Your task to perform on an android device: Do I have any events tomorrow? Image 0: 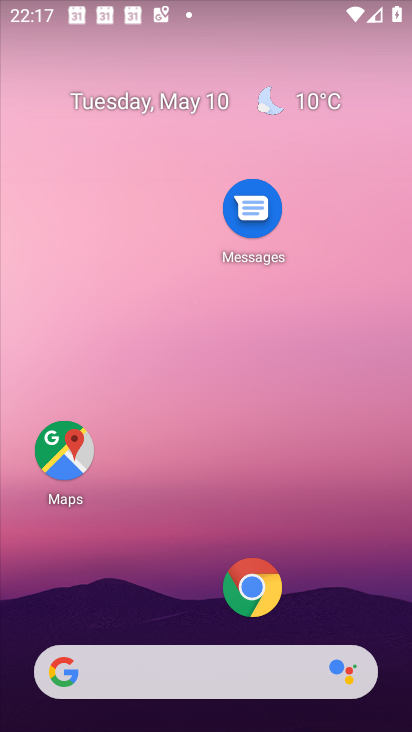
Step 0: drag from (189, 608) to (235, 234)
Your task to perform on an android device: Do I have any events tomorrow? Image 1: 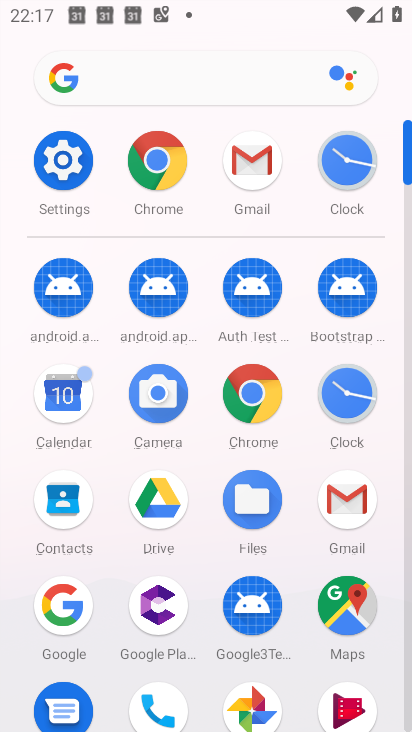
Step 1: click (80, 378)
Your task to perform on an android device: Do I have any events tomorrow? Image 2: 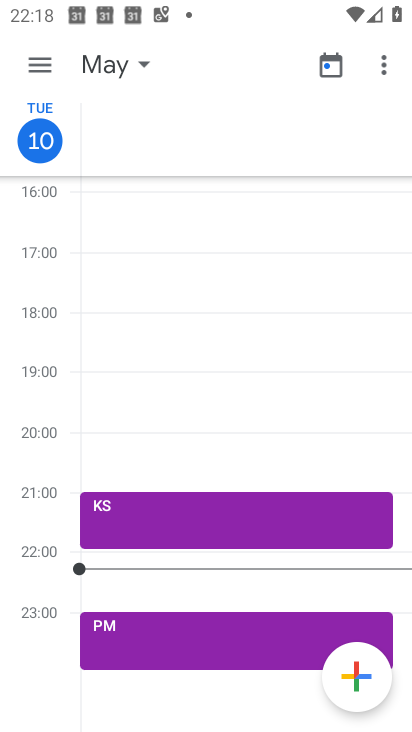
Step 2: click (43, 64)
Your task to perform on an android device: Do I have any events tomorrow? Image 3: 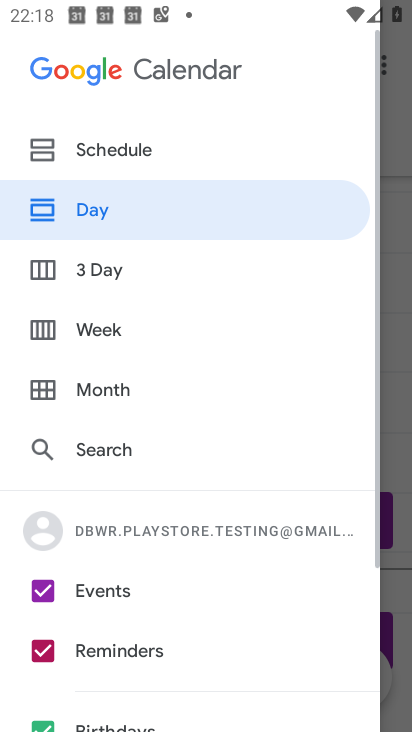
Step 3: drag from (120, 611) to (200, 206)
Your task to perform on an android device: Do I have any events tomorrow? Image 4: 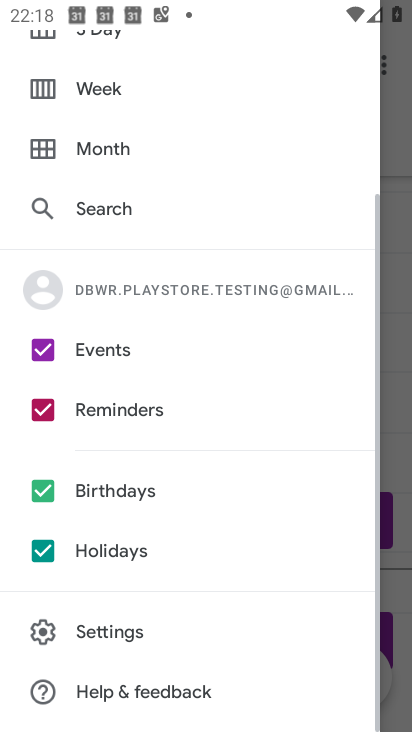
Step 4: click (134, 419)
Your task to perform on an android device: Do I have any events tomorrow? Image 5: 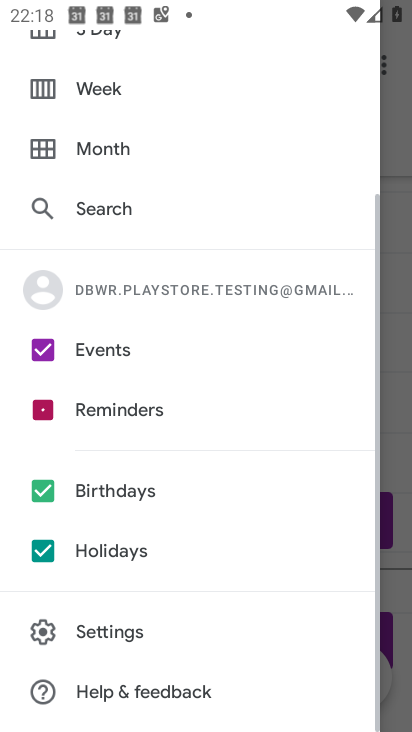
Step 5: click (120, 495)
Your task to perform on an android device: Do I have any events tomorrow? Image 6: 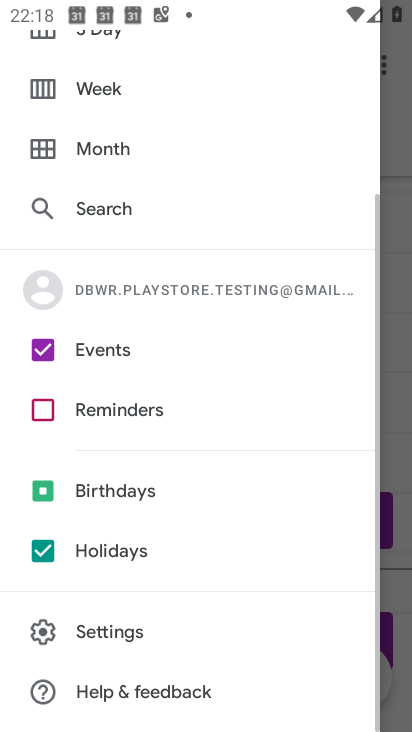
Step 6: click (109, 552)
Your task to perform on an android device: Do I have any events tomorrow? Image 7: 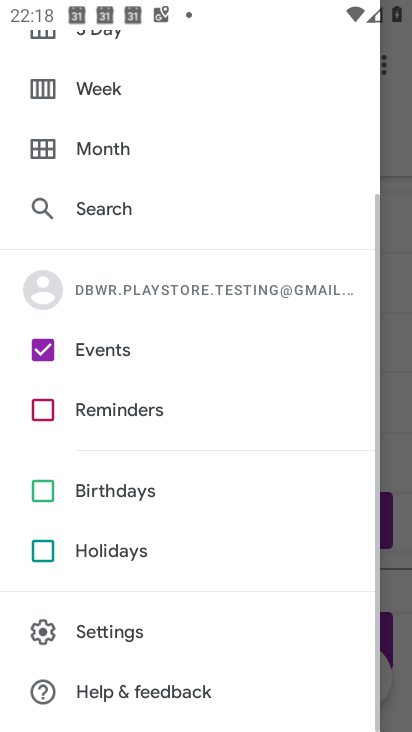
Step 7: drag from (214, 341) to (205, 524)
Your task to perform on an android device: Do I have any events tomorrow? Image 8: 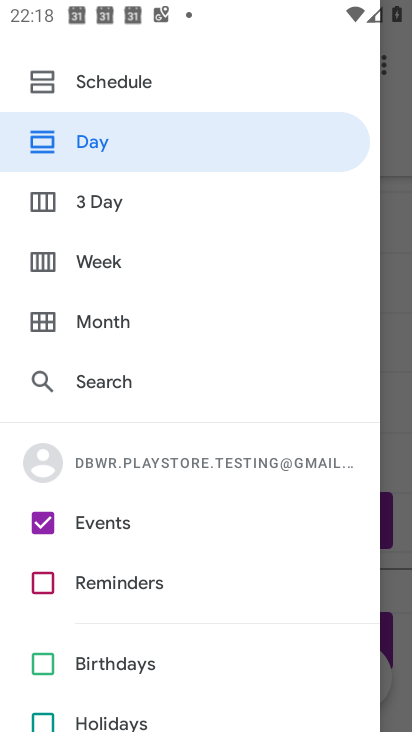
Step 8: click (115, 150)
Your task to perform on an android device: Do I have any events tomorrow? Image 9: 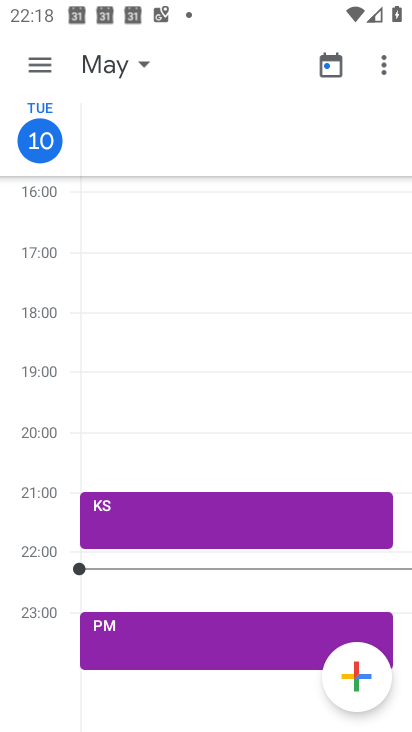
Step 9: click (47, 71)
Your task to perform on an android device: Do I have any events tomorrow? Image 10: 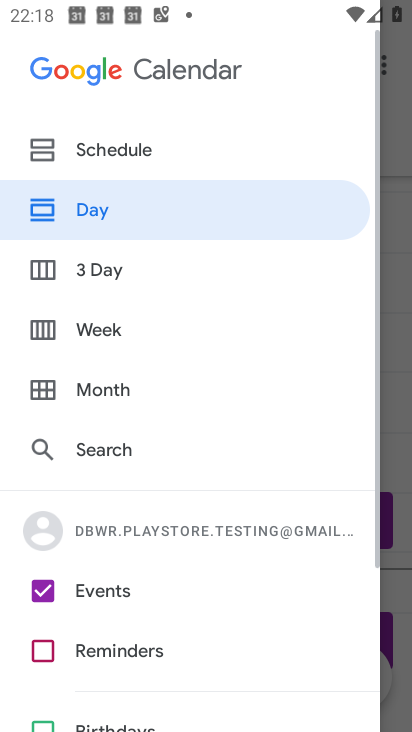
Step 10: click (89, 278)
Your task to perform on an android device: Do I have any events tomorrow? Image 11: 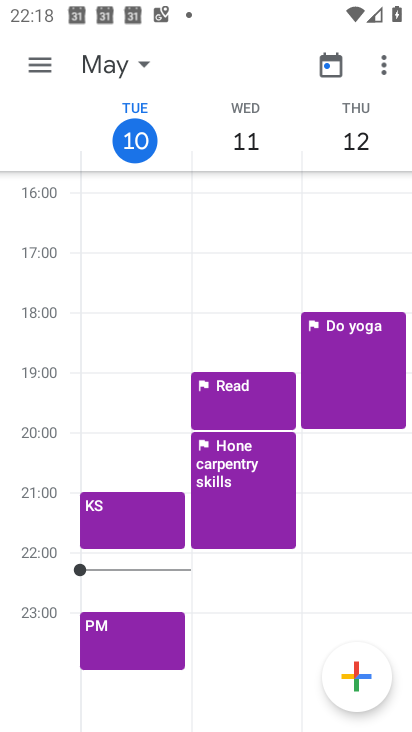
Step 11: task complete